Your task to perform on an android device: toggle airplane mode Image 0: 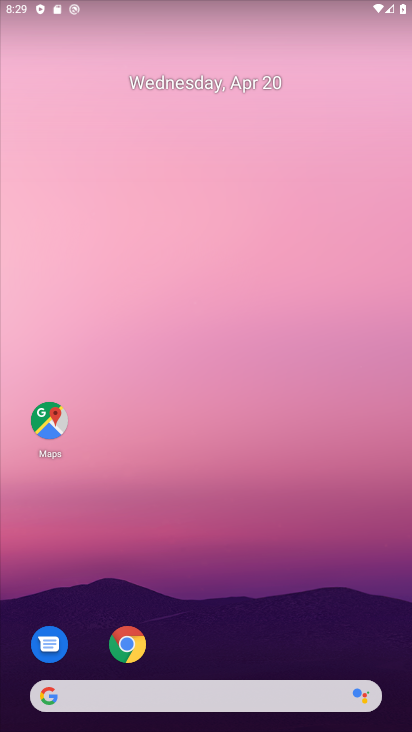
Step 0: drag from (238, 3) to (256, 491)
Your task to perform on an android device: toggle airplane mode Image 1: 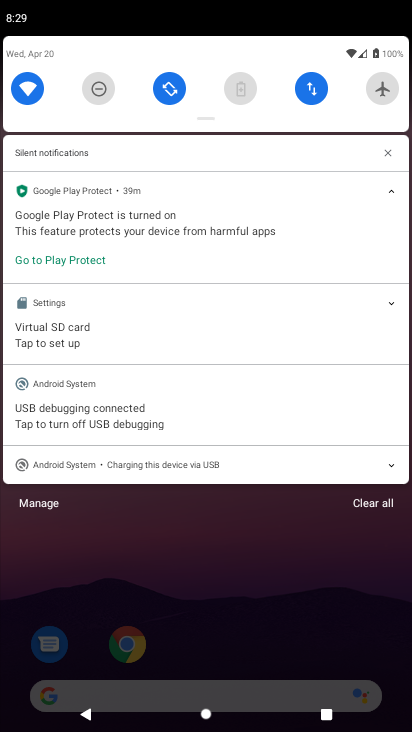
Step 1: click (375, 81)
Your task to perform on an android device: toggle airplane mode Image 2: 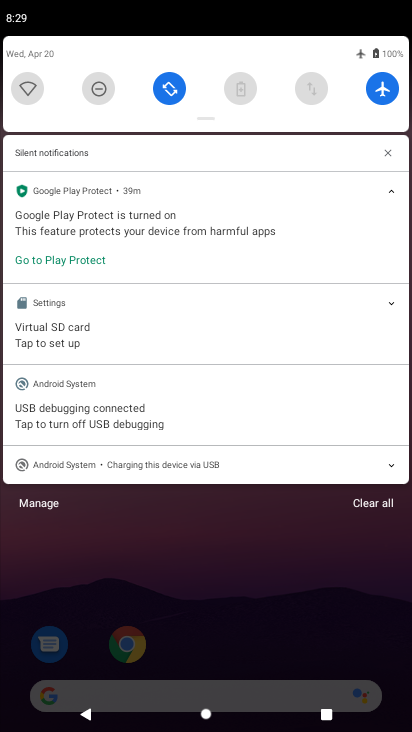
Step 2: task complete